Your task to perform on an android device: Open the stopwatch Image 0: 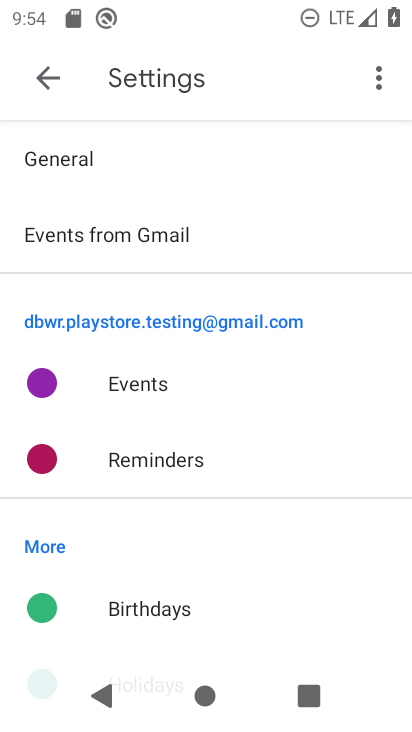
Step 0: press home button
Your task to perform on an android device: Open the stopwatch Image 1: 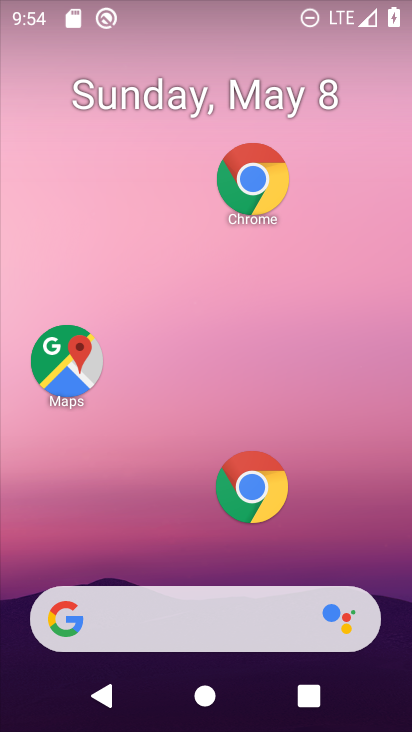
Step 1: drag from (130, 501) to (188, 59)
Your task to perform on an android device: Open the stopwatch Image 2: 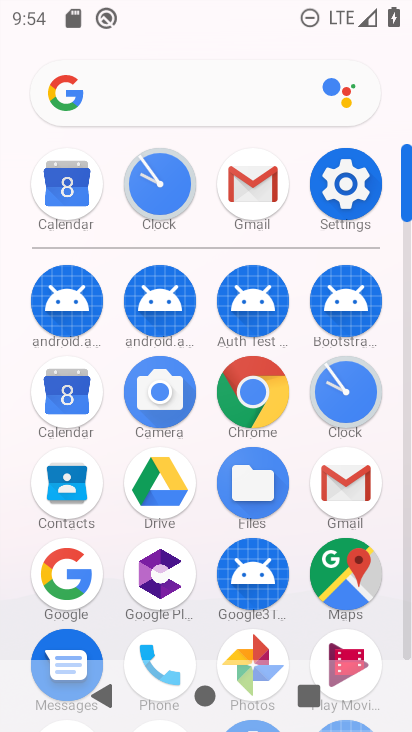
Step 2: click (169, 197)
Your task to perform on an android device: Open the stopwatch Image 3: 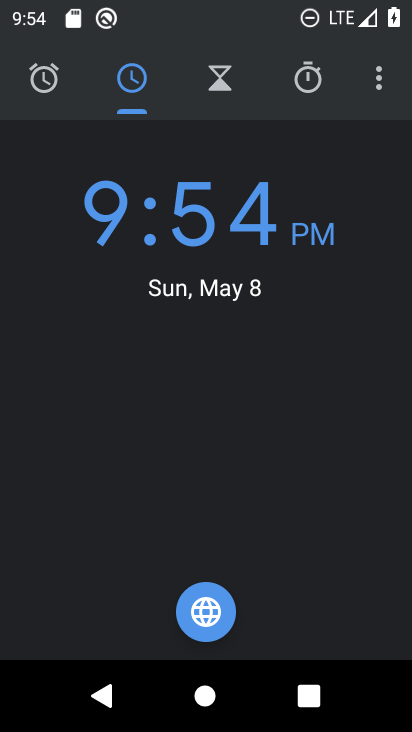
Step 3: click (309, 78)
Your task to perform on an android device: Open the stopwatch Image 4: 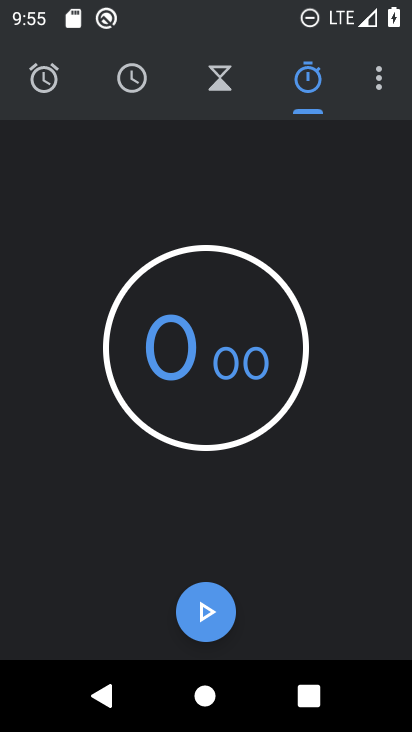
Step 4: task complete